Your task to perform on an android device: Empty the shopping cart on target.com. Search for "razer huntsman" on target.com, select the first entry, and add it to the cart. Image 0: 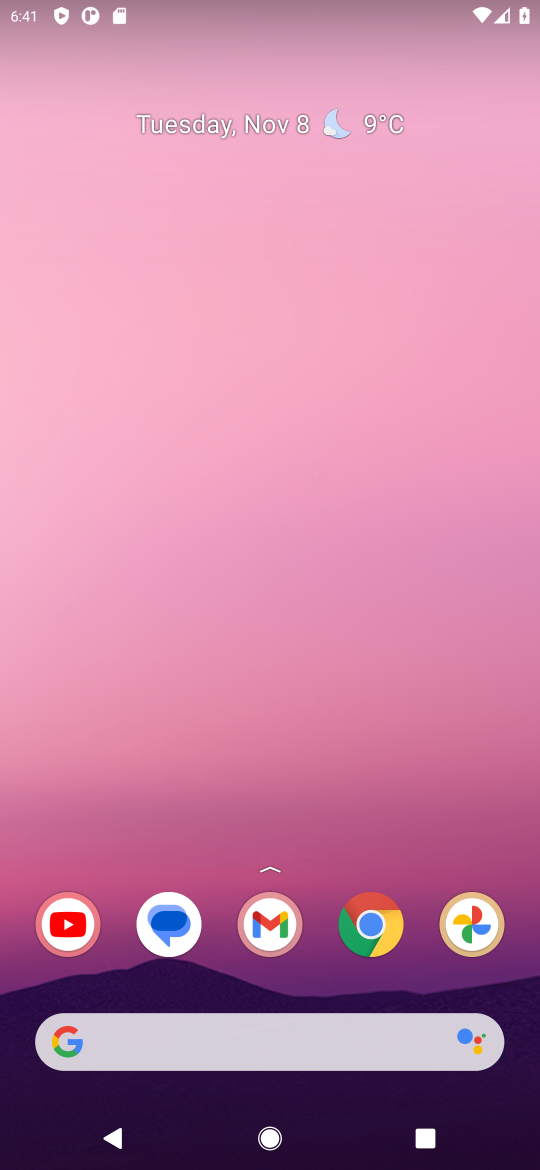
Step 0: click (323, 1043)
Your task to perform on an android device: Empty the shopping cart on target.com. Search for "razer huntsman" on target.com, select the first entry, and add it to the cart. Image 1: 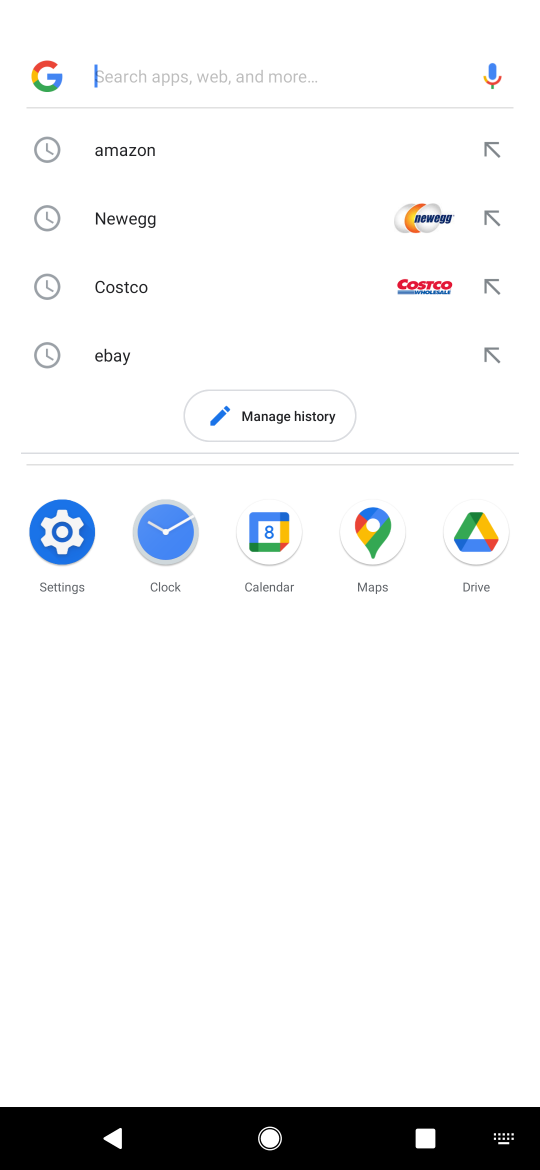
Step 1: type "target.com"
Your task to perform on an android device: Empty the shopping cart on target.com. Search for "razer huntsman" on target.com, select the first entry, and add it to the cart. Image 2: 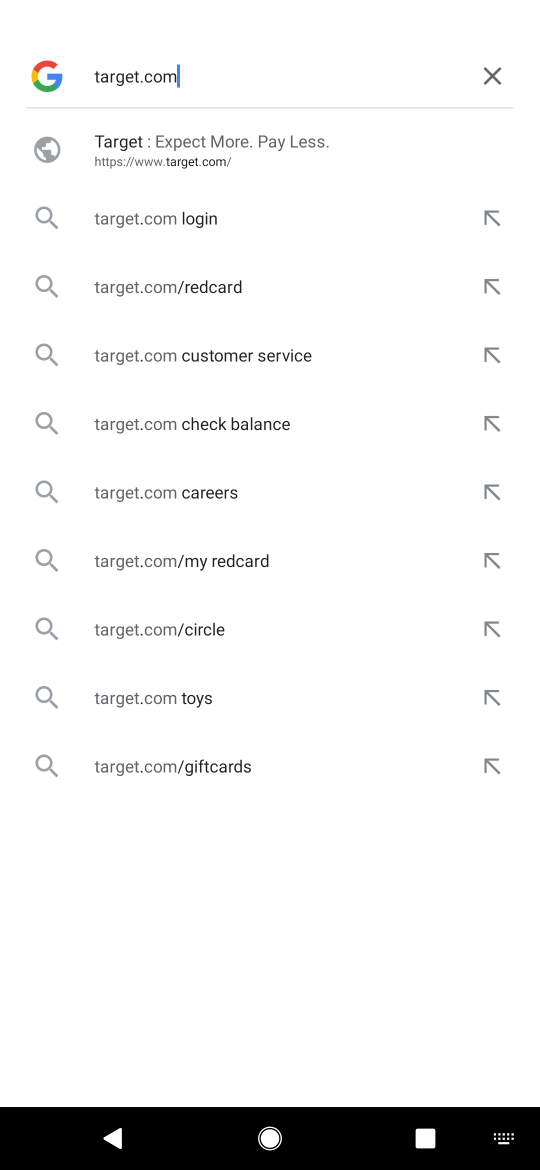
Step 2: click (232, 138)
Your task to perform on an android device: Empty the shopping cart on target.com. Search for "razer huntsman" on target.com, select the first entry, and add it to the cart. Image 3: 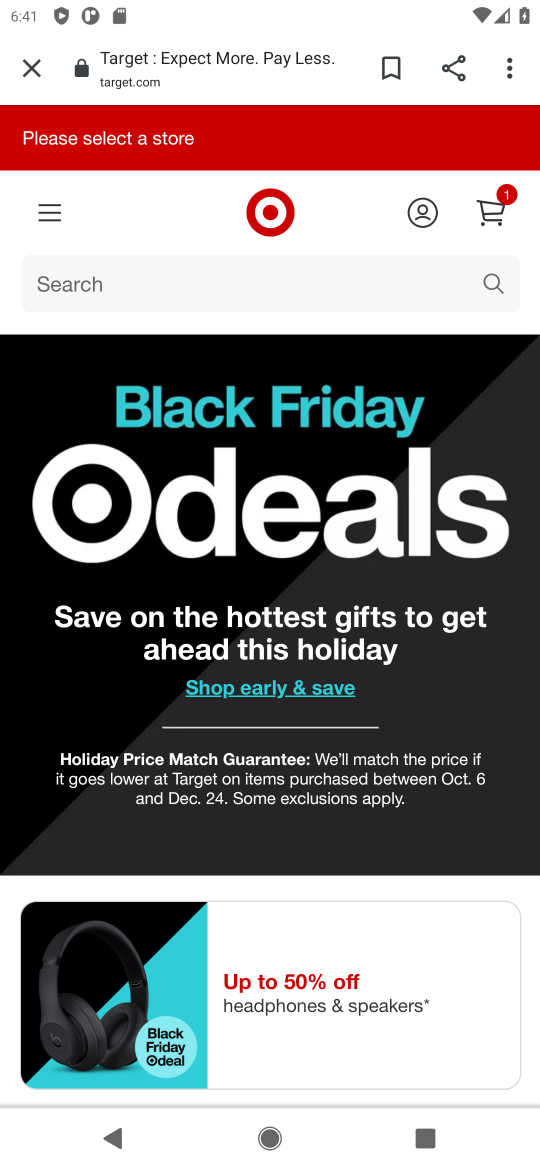
Step 3: click (142, 272)
Your task to perform on an android device: Empty the shopping cart on target.com. Search for "razer huntsman" on target.com, select the first entry, and add it to the cart. Image 4: 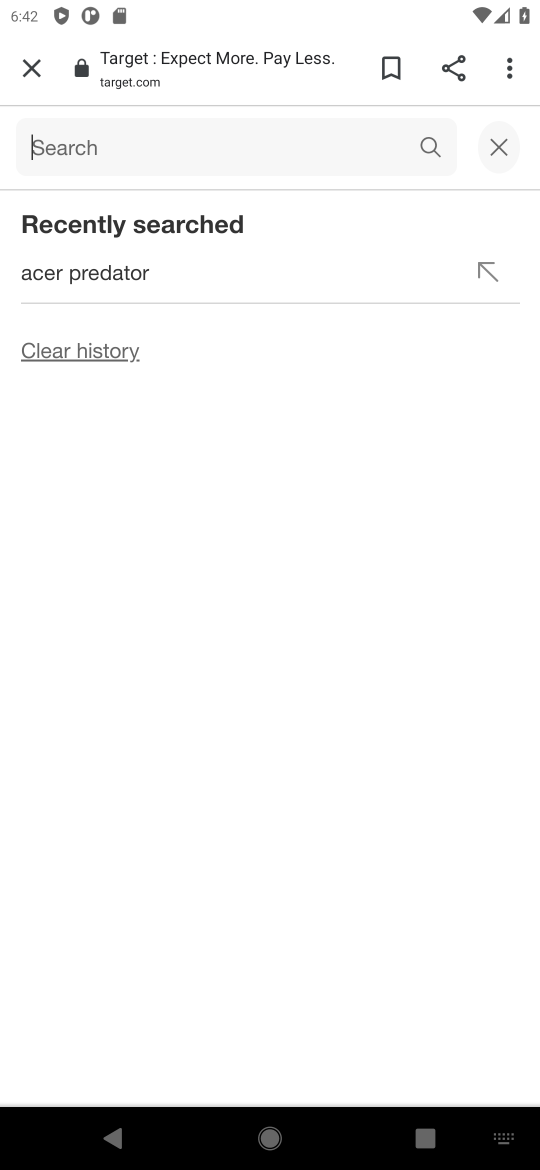
Step 4: type "razer huntsman"
Your task to perform on an android device: Empty the shopping cart on target.com. Search for "razer huntsman" on target.com, select the first entry, and add it to the cart. Image 5: 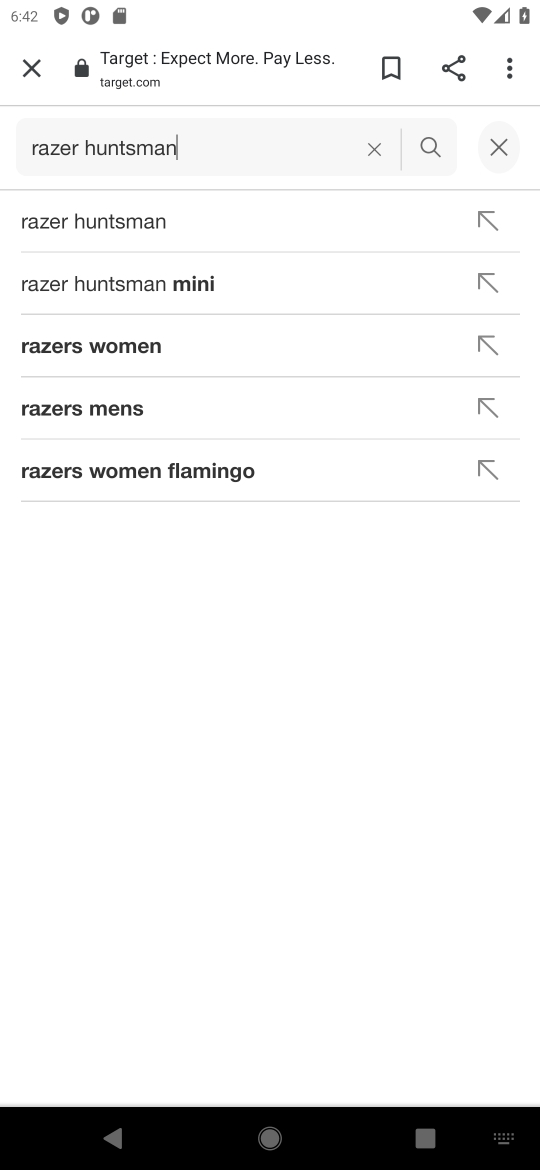
Step 5: click (76, 223)
Your task to perform on an android device: Empty the shopping cart on target.com. Search for "razer huntsman" on target.com, select the first entry, and add it to the cart. Image 6: 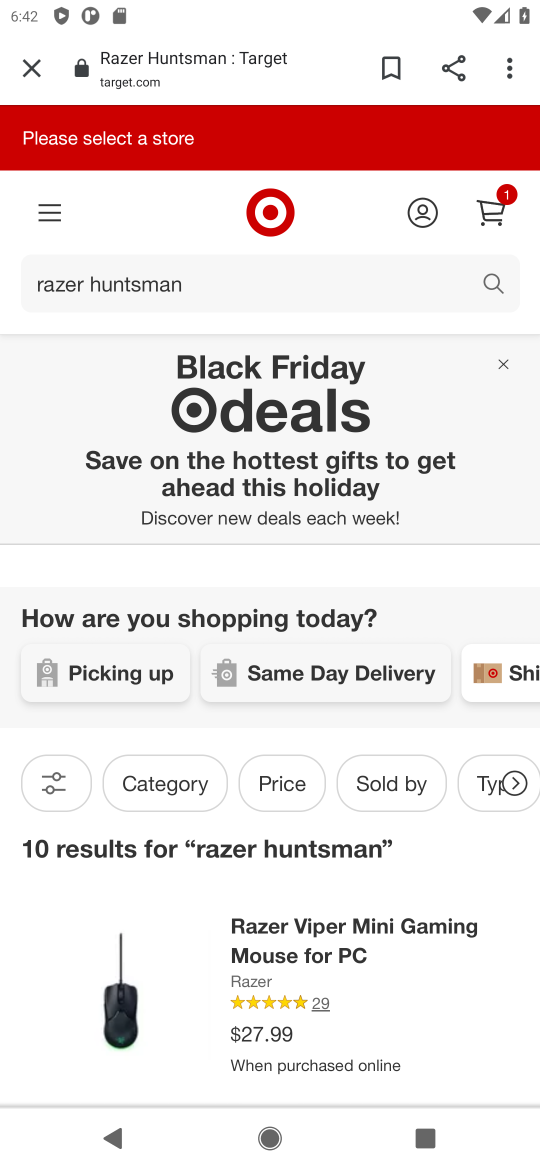
Step 6: click (196, 944)
Your task to perform on an android device: Empty the shopping cart on target.com. Search for "razer huntsman" on target.com, select the first entry, and add it to the cart. Image 7: 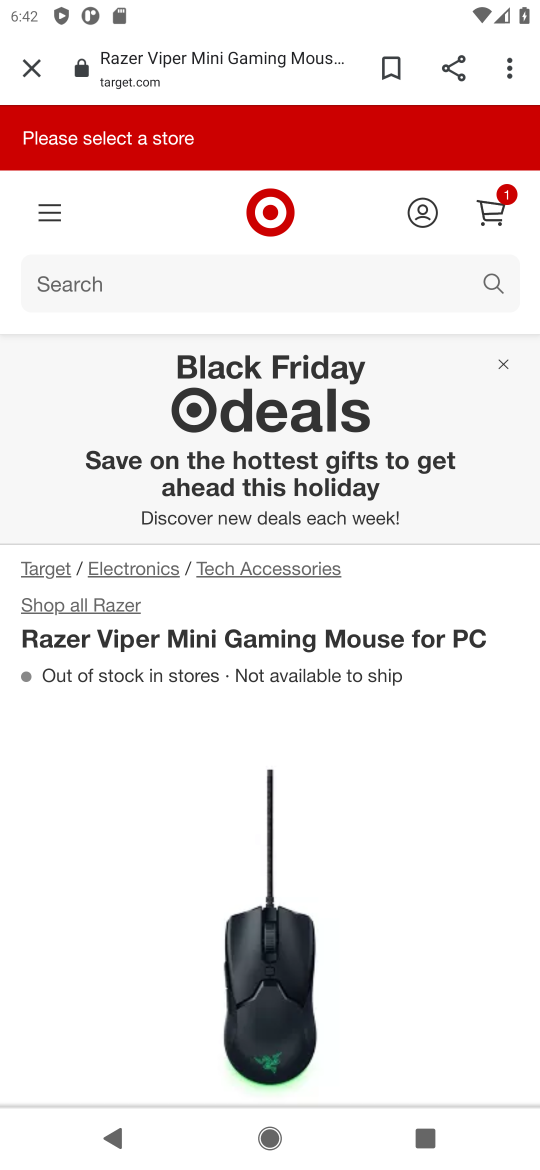
Step 7: drag from (378, 913) to (406, 522)
Your task to perform on an android device: Empty the shopping cart on target.com. Search for "razer huntsman" on target.com, select the first entry, and add it to the cart. Image 8: 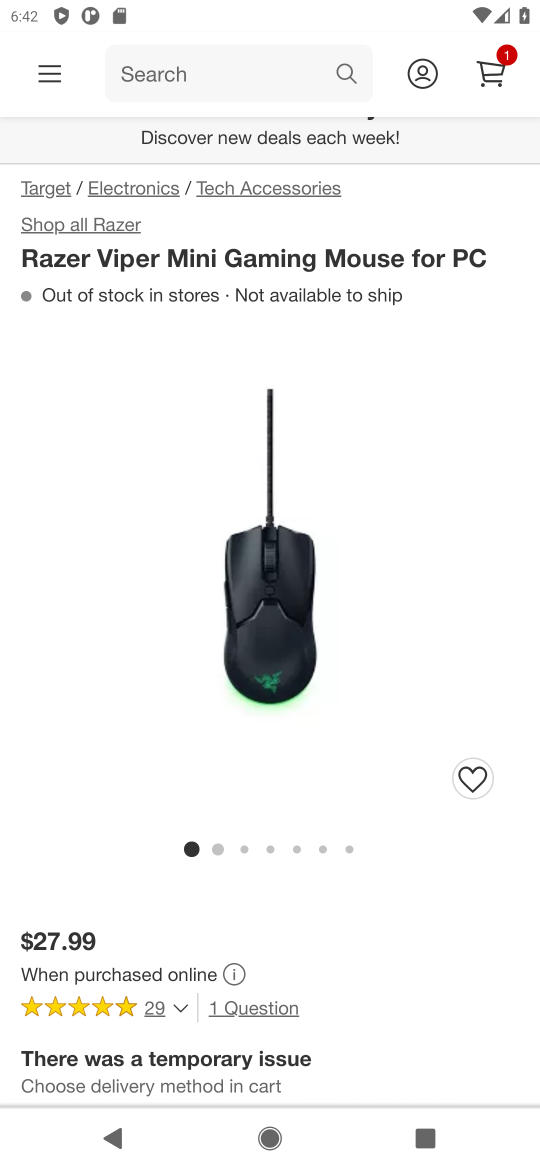
Step 8: drag from (264, 882) to (289, 550)
Your task to perform on an android device: Empty the shopping cart on target.com. Search for "razer huntsman" on target.com, select the first entry, and add it to the cart. Image 9: 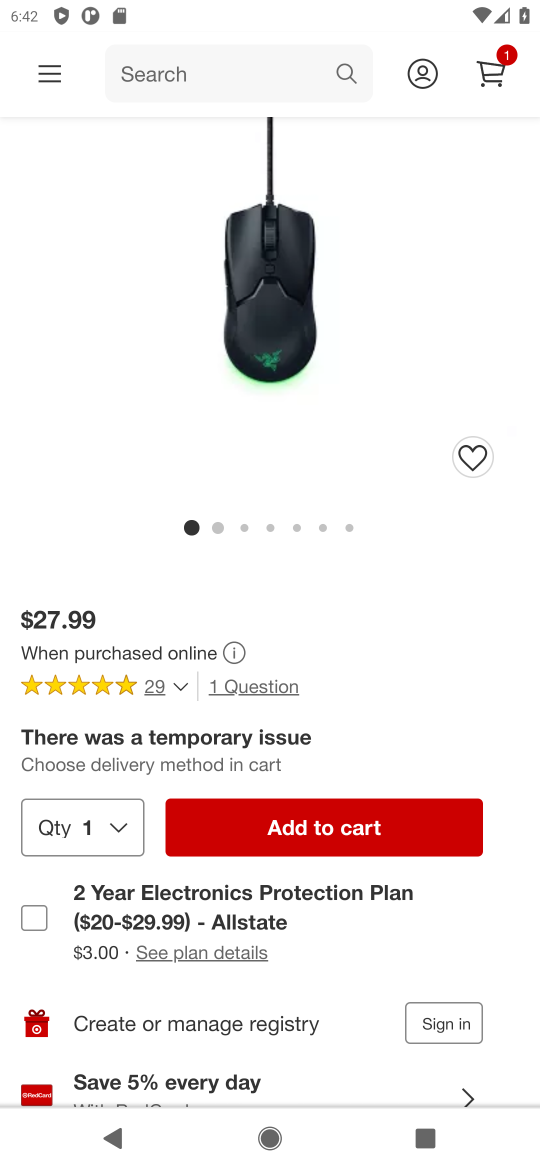
Step 9: click (303, 824)
Your task to perform on an android device: Empty the shopping cart on target.com. Search for "razer huntsman" on target.com, select the first entry, and add it to the cart. Image 10: 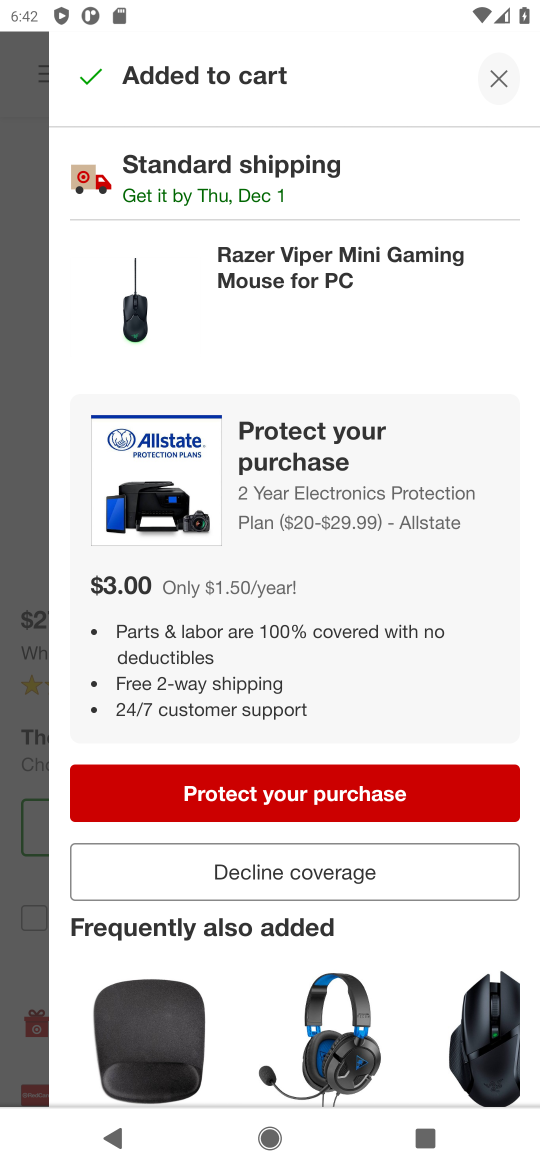
Step 10: click (505, 86)
Your task to perform on an android device: Empty the shopping cart on target.com. Search for "razer huntsman" on target.com, select the first entry, and add it to the cart. Image 11: 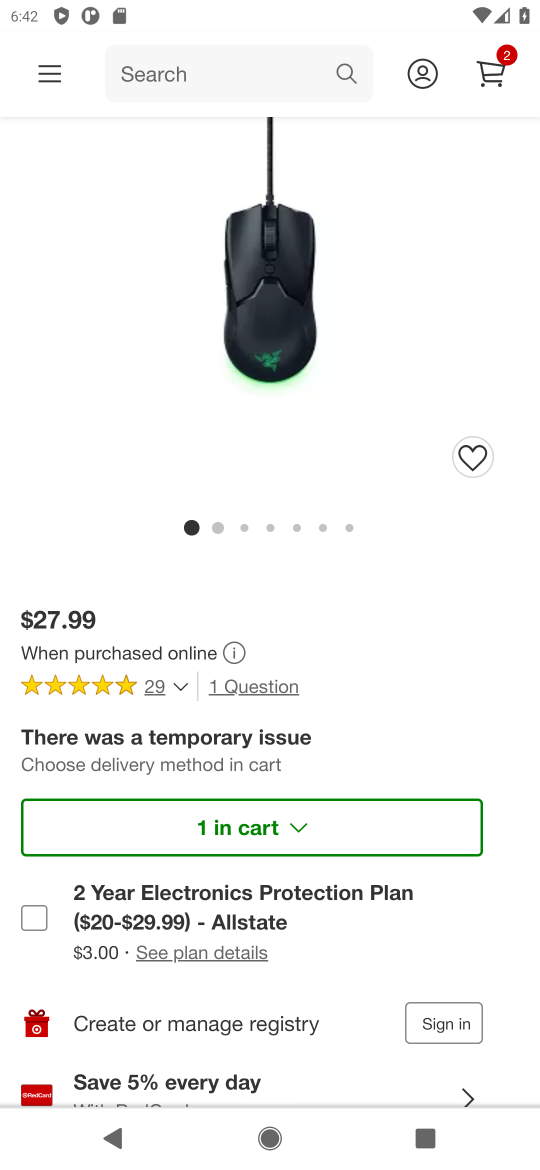
Step 11: task complete